Your task to perform on an android device: toggle notification dots Image 0: 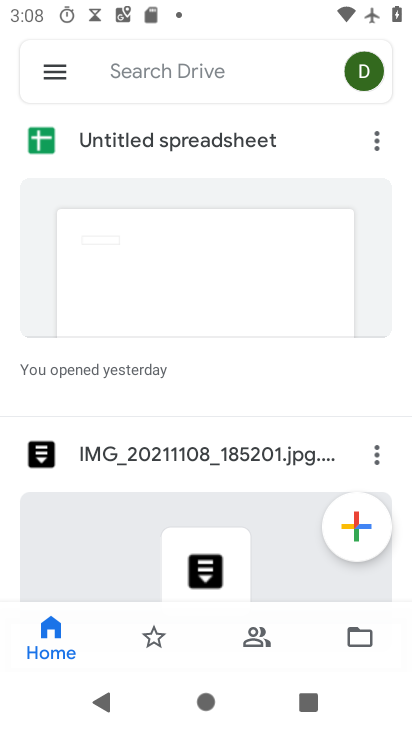
Step 0: press home button
Your task to perform on an android device: toggle notification dots Image 1: 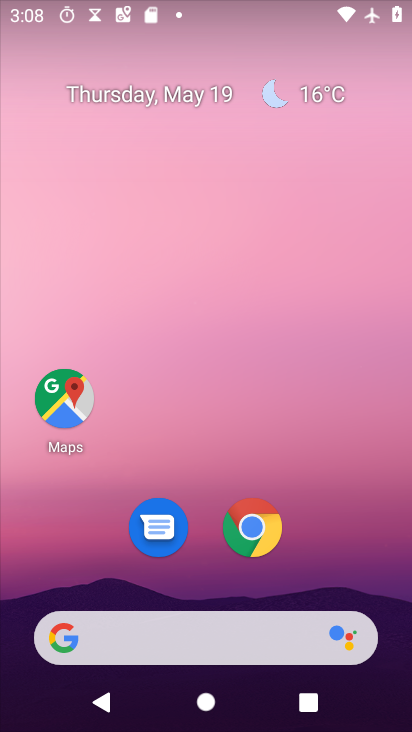
Step 1: drag from (262, 334) to (185, 52)
Your task to perform on an android device: toggle notification dots Image 2: 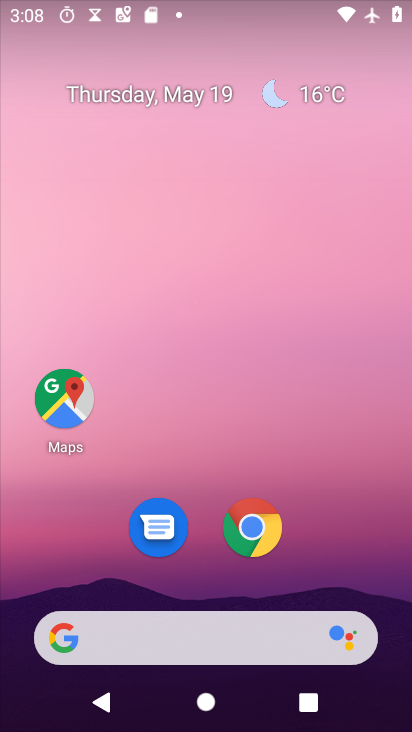
Step 2: drag from (322, 549) to (248, 102)
Your task to perform on an android device: toggle notification dots Image 3: 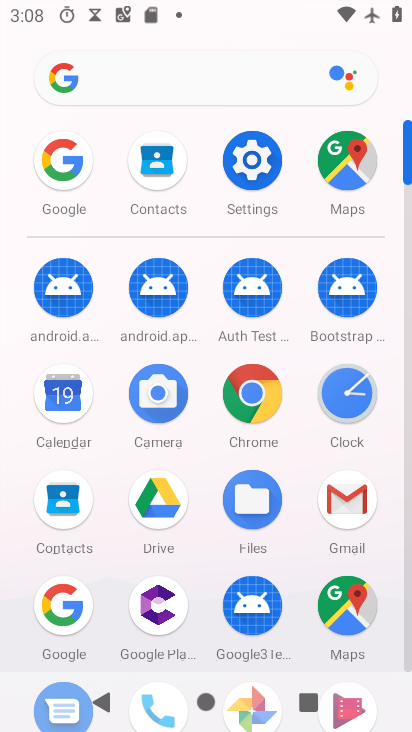
Step 3: click (259, 165)
Your task to perform on an android device: toggle notification dots Image 4: 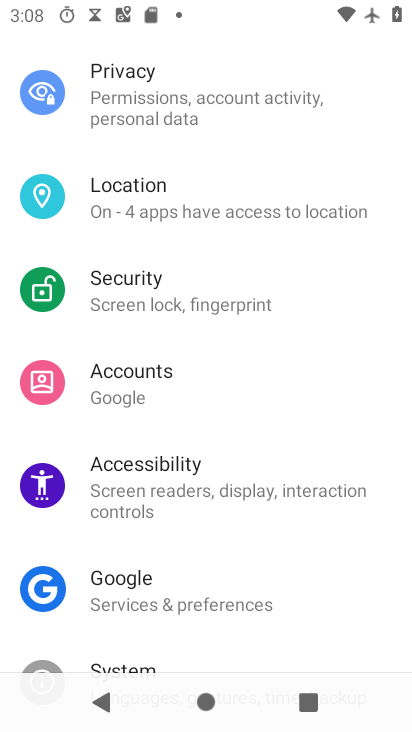
Step 4: drag from (279, 129) to (228, 616)
Your task to perform on an android device: toggle notification dots Image 5: 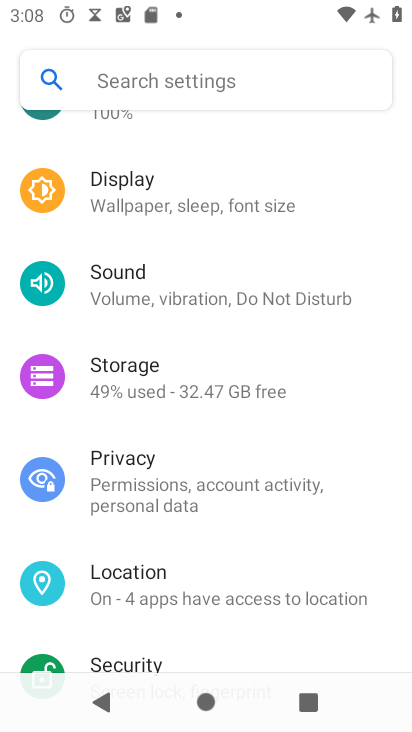
Step 5: drag from (218, 214) to (185, 633)
Your task to perform on an android device: toggle notification dots Image 6: 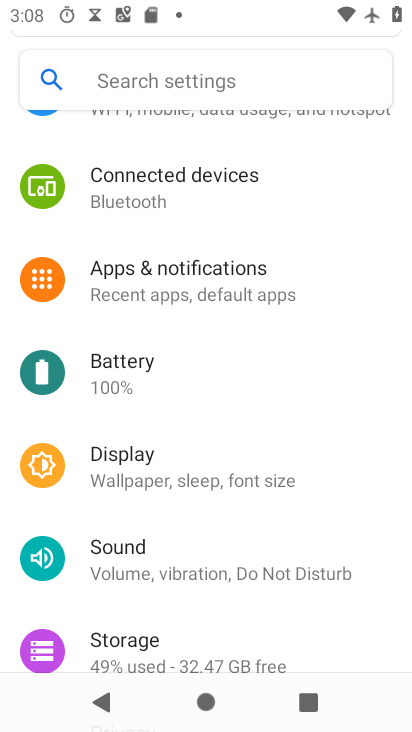
Step 6: click (208, 282)
Your task to perform on an android device: toggle notification dots Image 7: 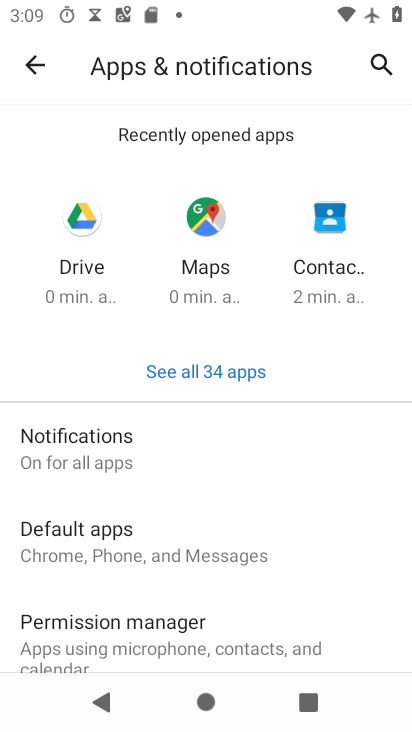
Step 7: click (224, 454)
Your task to perform on an android device: toggle notification dots Image 8: 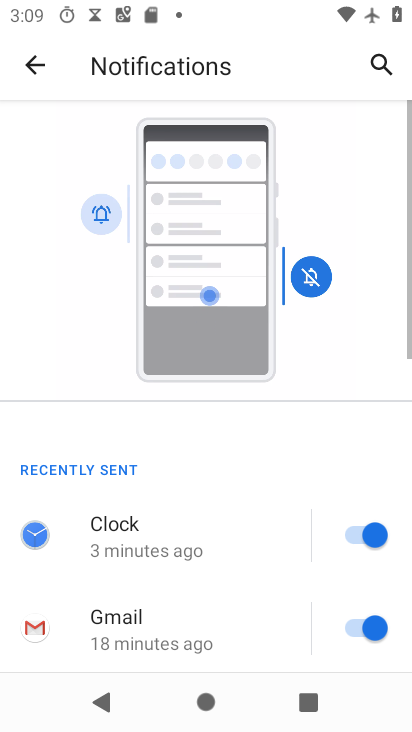
Step 8: drag from (297, 637) to (235, 169)
Your task to perform on an android device: toggle notification dots Image 9: 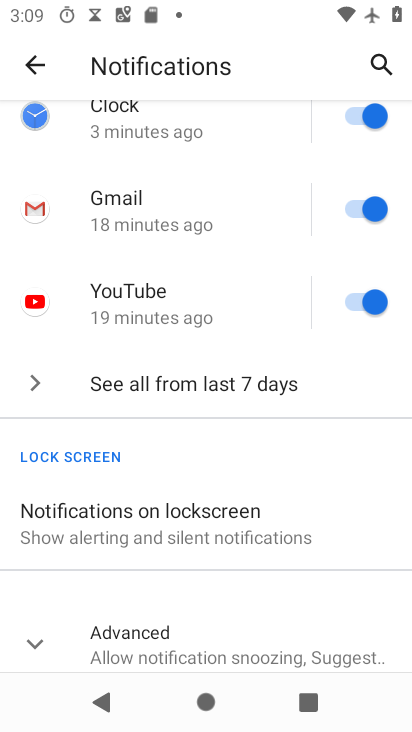
Step 9: drag from (249, 503) to (254, 312)
Your task to perform on an android device: toggle notification dots Image 10: 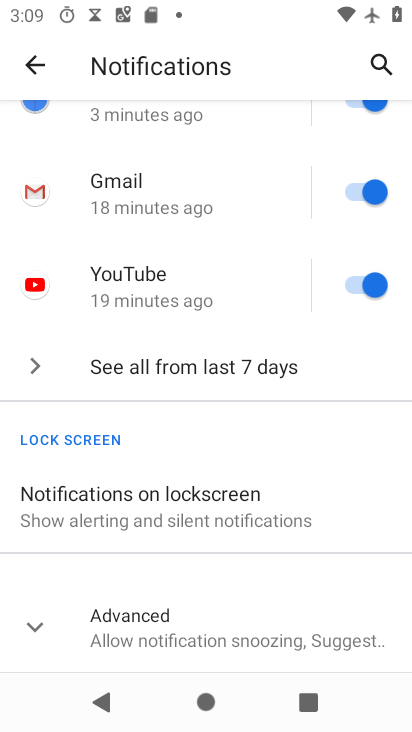
Step 10: click (224, 618)
Your task to perform on an android device: toggle notification dots Image 11: 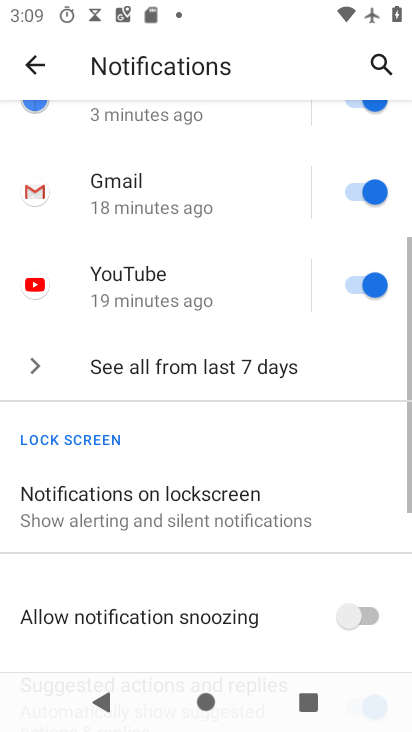
Step 11: drag from (235, 578) to (224, 117)
Your task to perform on an android device: toggle notification dots Image 12: 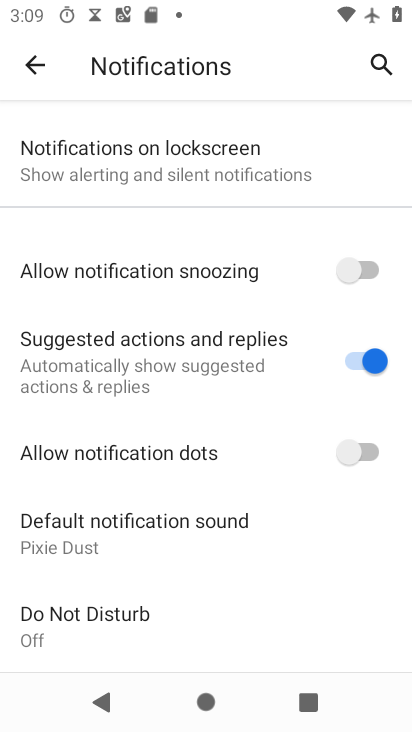
Step 12: click (348, 451)
Your task to perform on an android device: toggle notification dots Image 13: 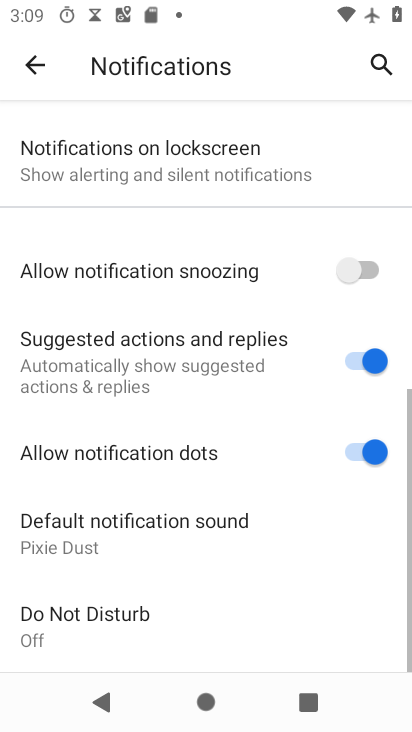
Step 13: task complete